Your task to perform on an android device: Search for vegetarian restaurants on Maps Image 0: 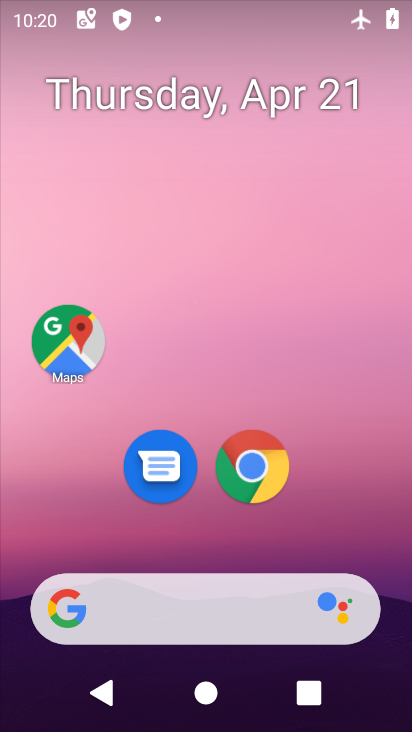
Step 0: drag from (321, 303) to (272, 0)
Your task to perform on an android device: Search for vegetarian restaurants on Maps Image 1: 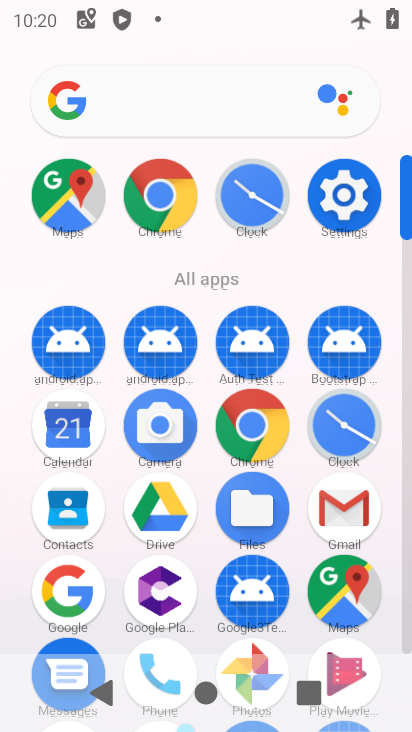
Step 1: click (333, 588)
Your task to perform on an android device: Search for vegetarian restaurants on Maps Image 2: 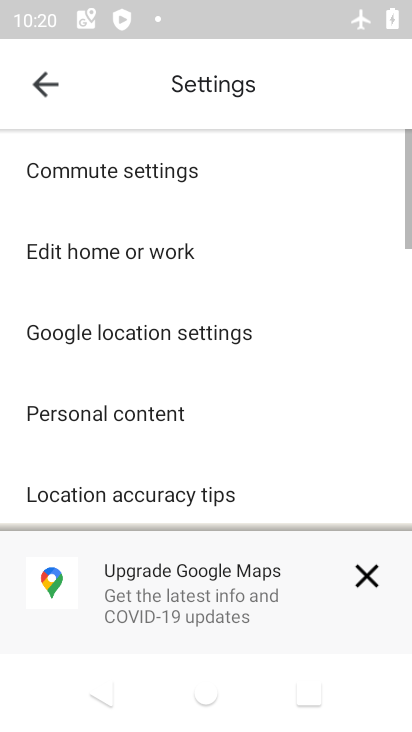
Step 2: click (48, 72)
Your task to perform on an android device: Search for vegetarian restaurants on Maps Image 3: 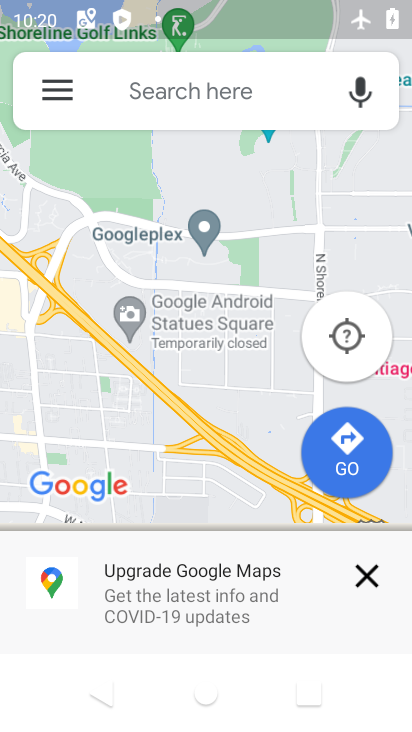
Step 3: click (196, 107)
Your task to perform on an android device: Search for vegetarian restaurants on Maps Image 4: 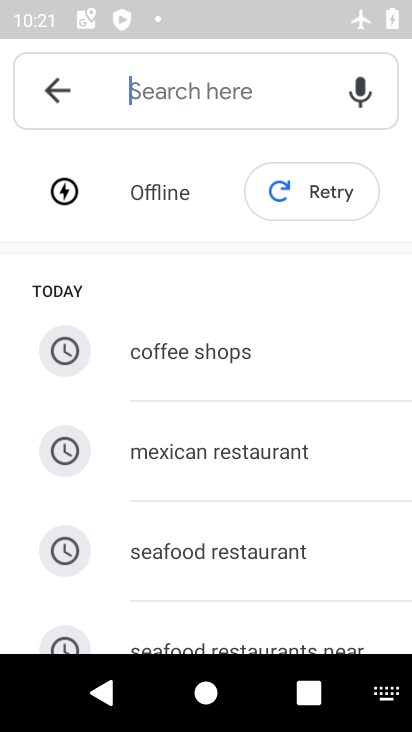
Step 4: type "vegetarian restaurants"
Your task to perform on an android device: Search for vegetarian restaurants on Maps Image 5: 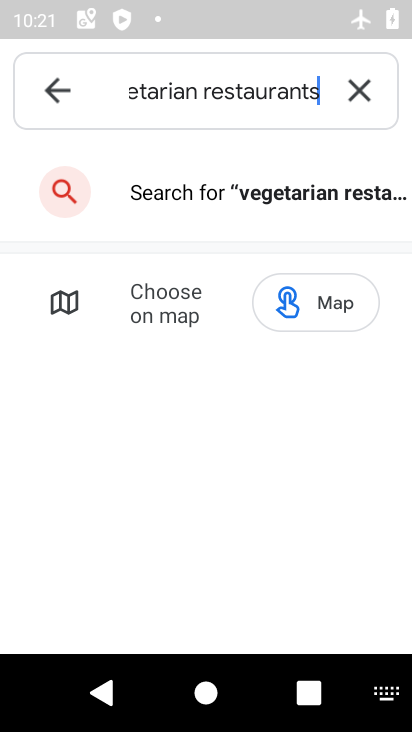
Step 5: press enter
Your task to perform on an android device: Search for vegetarian restaurants on Maps Image 6: 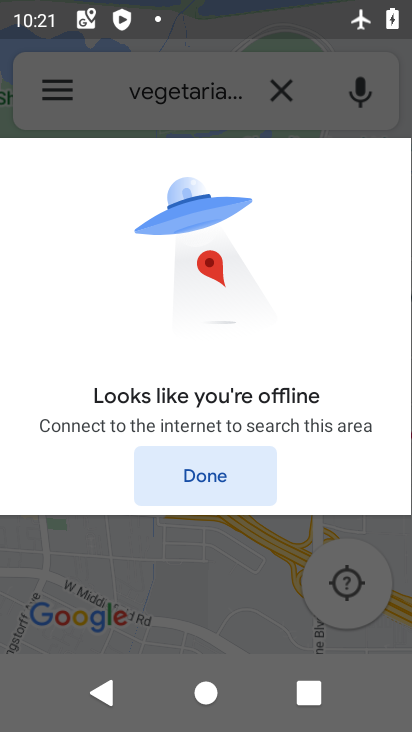
Step 6: task complete